Your task to perform on an android device: Check the news Image 0: 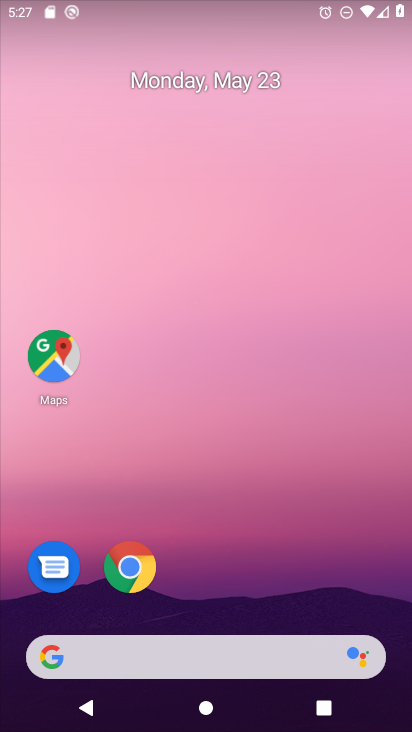
Step 0: drag from (274, 591) to (239, 225)
Your task to perform on an android device: Check the news Image 1: 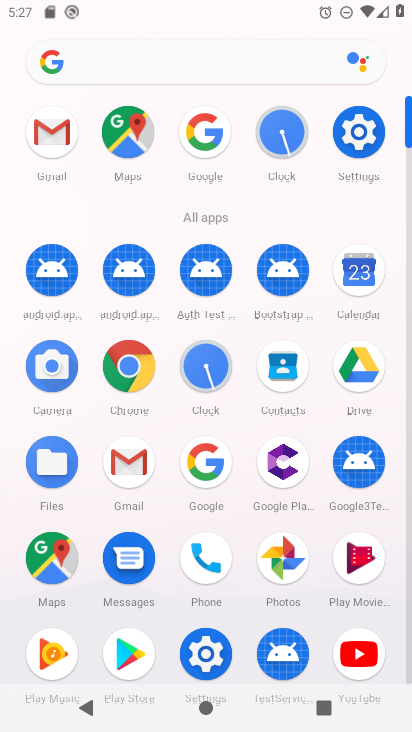
Step 1: click (201, 132)
Your task to perform on an android device: Check the news Image 2: 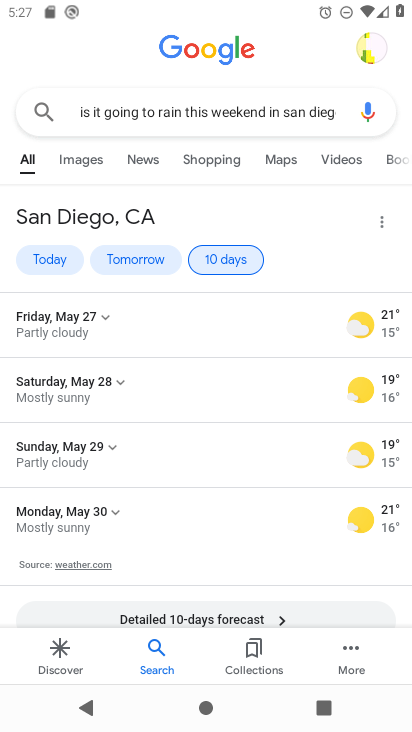
Step 2: click (257, 98)
Your task to perform on an android device: Check the news Image 3: 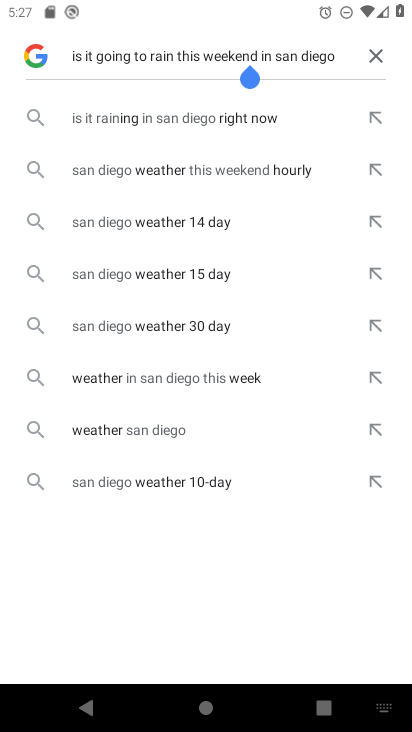
Step 3: click (377, 57)
Your task to perform on an android device: Check the news Image 4: 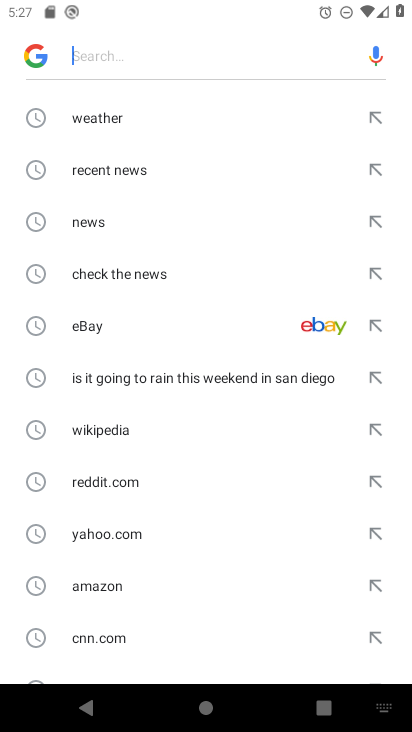
Step 4: click (81, 223)
Your task to perform on an android device: Check the news Image 5: 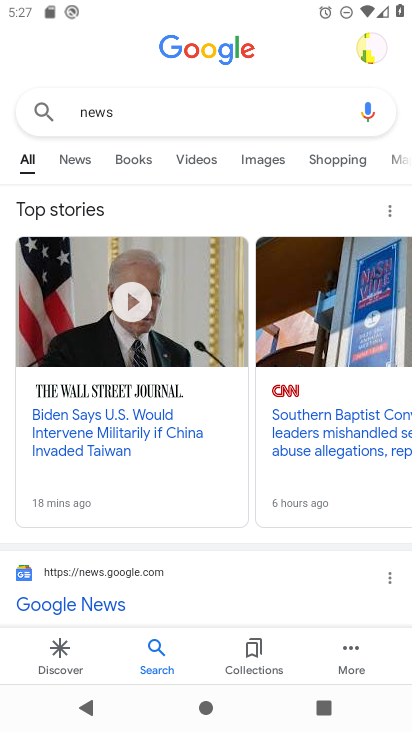
Step 5: task complete